Your task to perform on an android device: allow notifications from all sites in the chrome app Image 0: 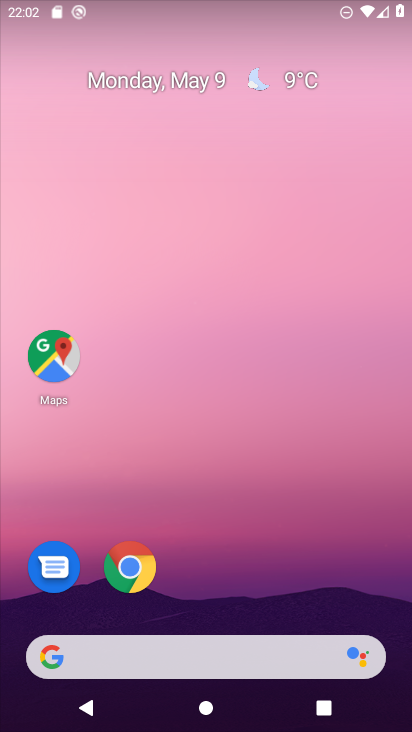
Step 0: click (123, 558)
Your task to perform on an android device: allow notifications from all sites in the chrome app Image 1: 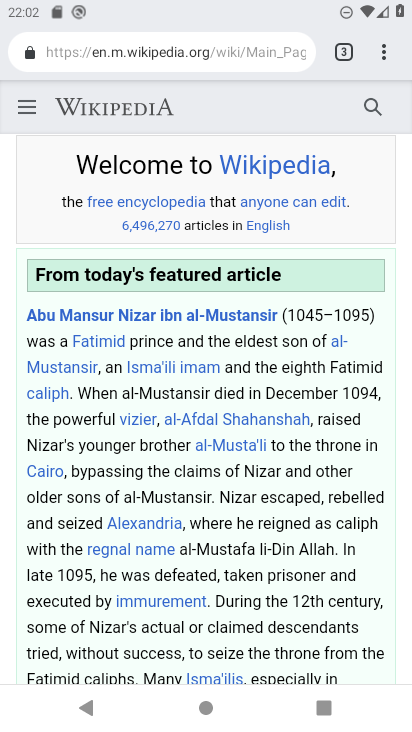
Step 1: click (382, 59)
Your task to perform on an android device: allow notifications from all sites in the chrome app Image 2: 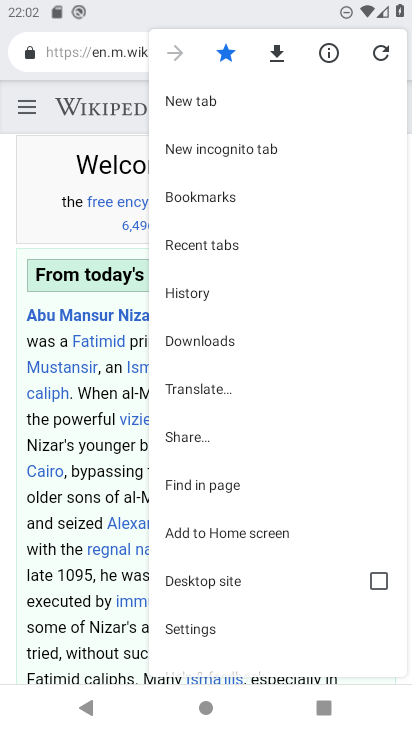
Step 2: click (198, 620)
Your task to perform on an android device: allow notifications from all sites in the chrome app Image 3: 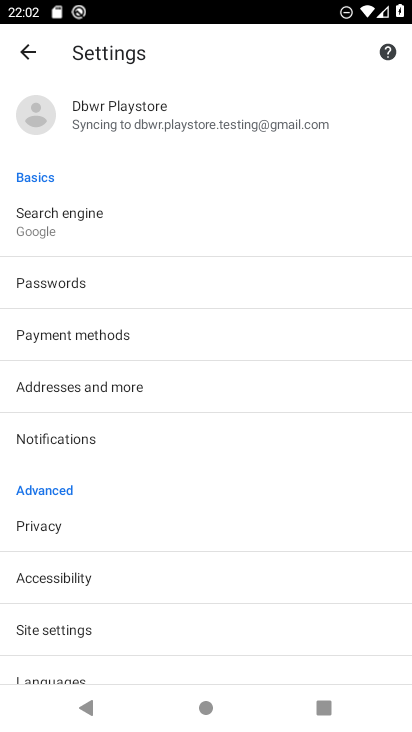
Step 3: click (152, 429)
Your task to perform on an android device: allow notifications from all sites in the chrome app Image 4: 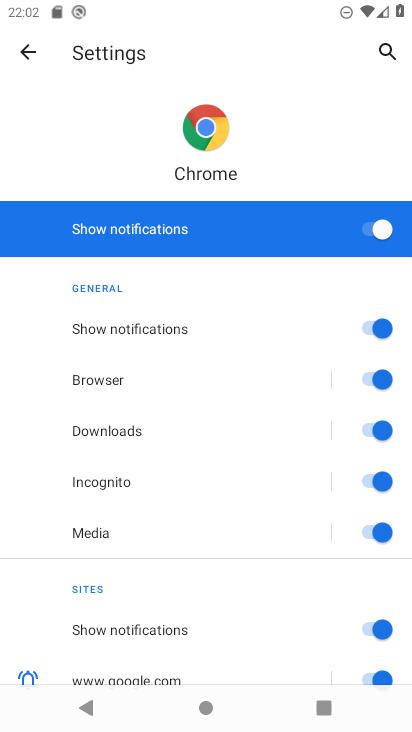
Step 4: task complete